Your task to perform on an android device: Search for vegetarian restaurants on Maps Image 0: 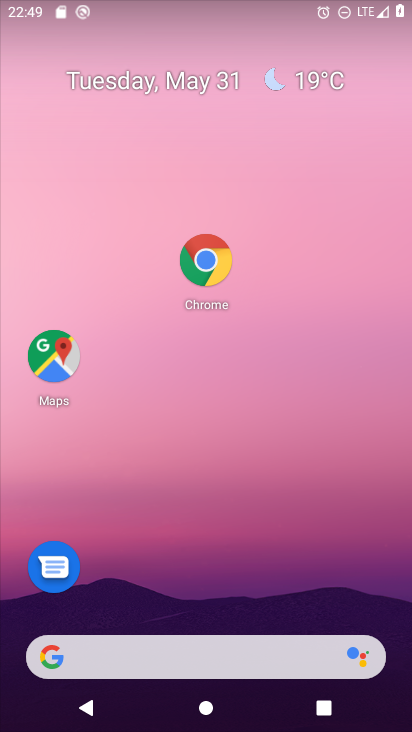
Step 0: click (47, 345)
Your task to perform on an android device: Search for vegetarian restaurants on Maps Image 1: 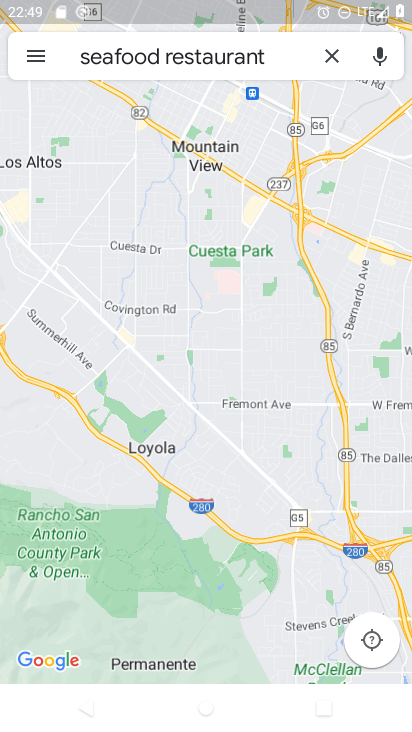
Step 1: click (329, 58)
Your task to perform on an android device: Search for vegetarian restaurants on Maps Image 2: 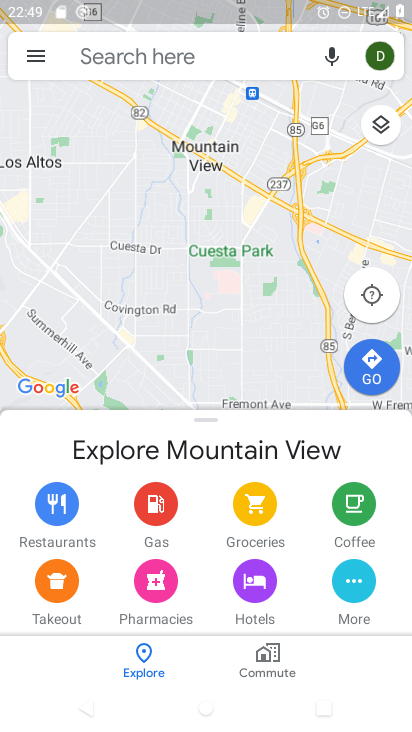
Step 2: click (240, 64)
Your task to perform on an android device: Search for vegetarian restaurants on Maps Image 3: 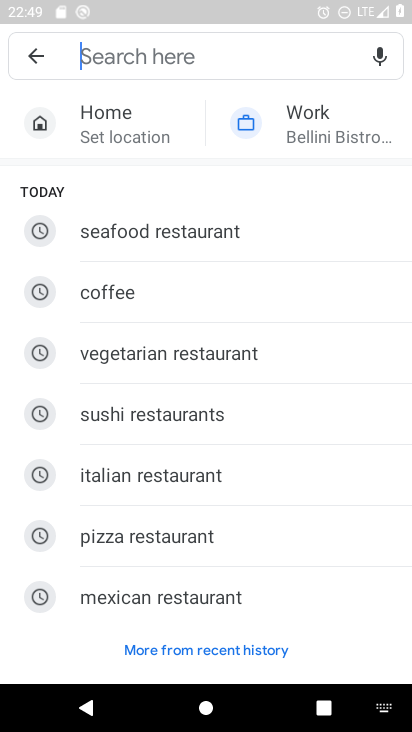
Step 3: click (110, 347)
Your task to perform on an android device: Search for vegetarian restaurants on Maps Image 4: 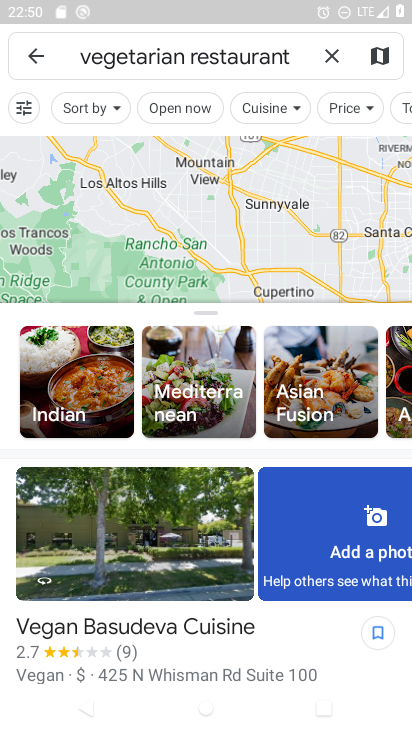
Step 4: task complete